Your task to perform on an android device: Show me productivity apps on the Play Store Image 0: 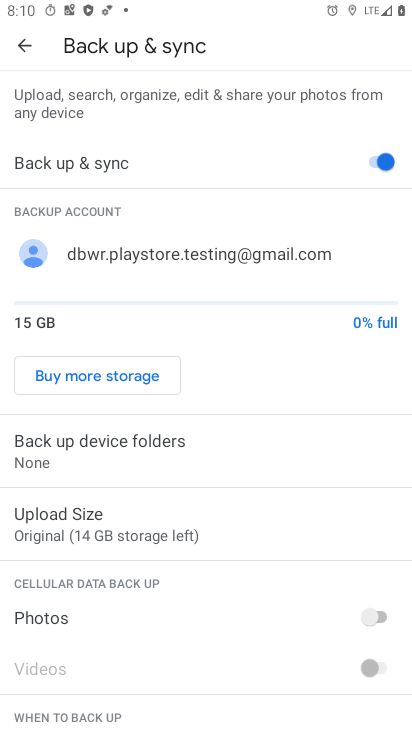
Step 0: press home button
Your task to perform on an android device: Show me productivity apps on the Play Store Image 1: 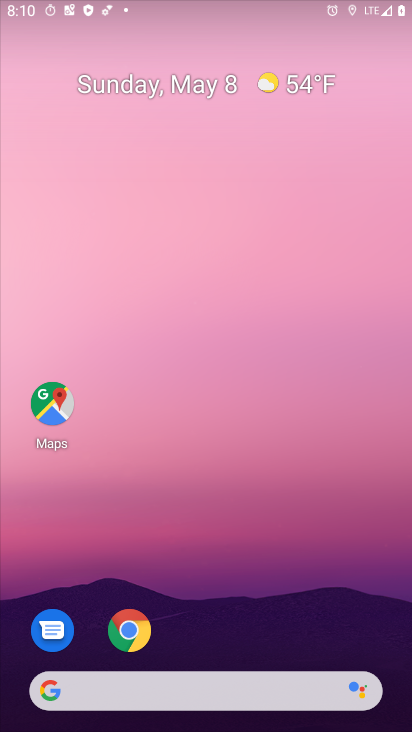
Step 1: drag from (172, 656) to (86, 8)
Your task to perform on an android device: Show me productivity apps on the Play Store Image 2: 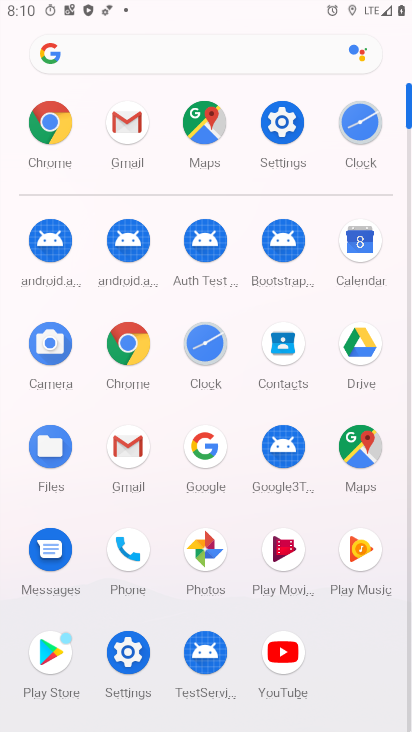
Step 2: click (65, 647)
Your task to perform on an android device: Show me productivity apps on the Play Store Image 3: 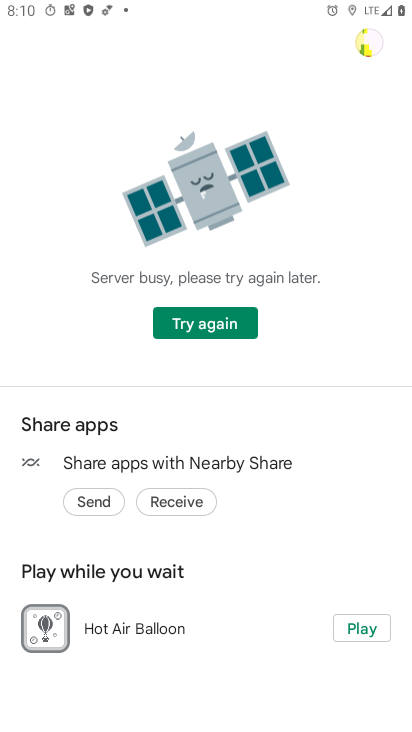
Step 3: click (174, 329)
Your task to perform on an android device: Show me productivity apps on the Play Store Image 4: 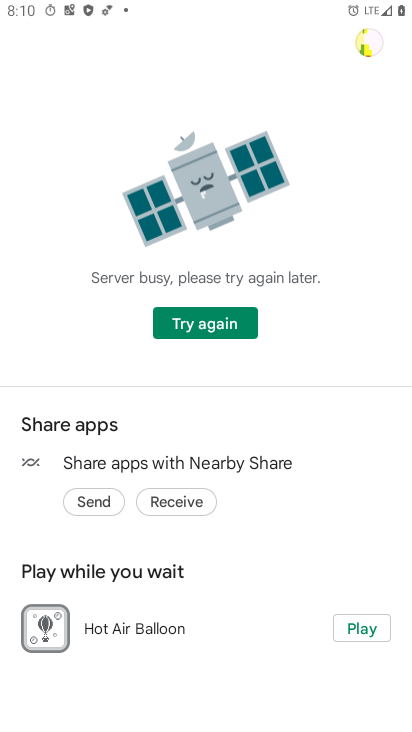
Step 4: click (172, 328)
Your task to perform on an android device: Show me productivity apps on the Play Store Image 5: 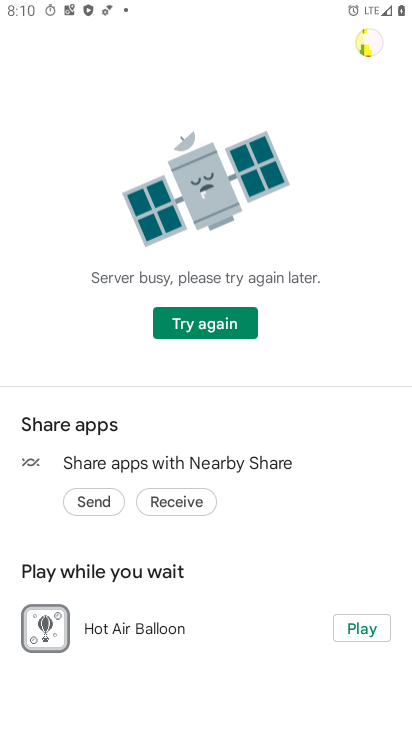
Step 5: task complete